Your task to perform on an android device: turn off wifi Image 0: 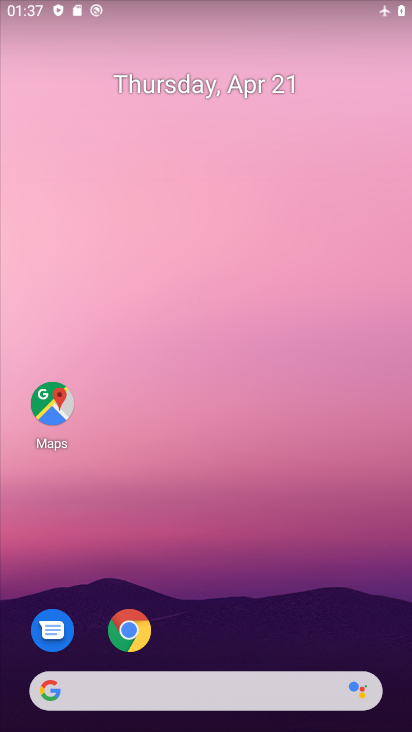
Step 0: drag from (235, 644) to (246, 36)
Your task to perform on an android device: turn off wifi Image 1: 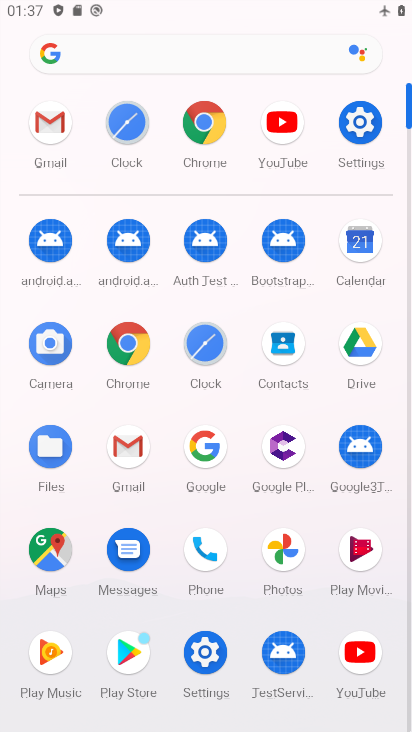
Step 1: click (218, 676)
Your task to perform on an android device: turn off wifi Image 2: 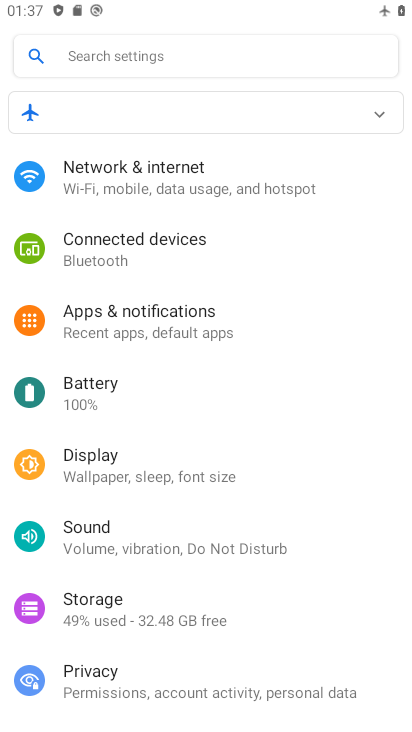
Step 2: click (195, 186)
Your task to perform on an android device: turn off wifi Image 3: 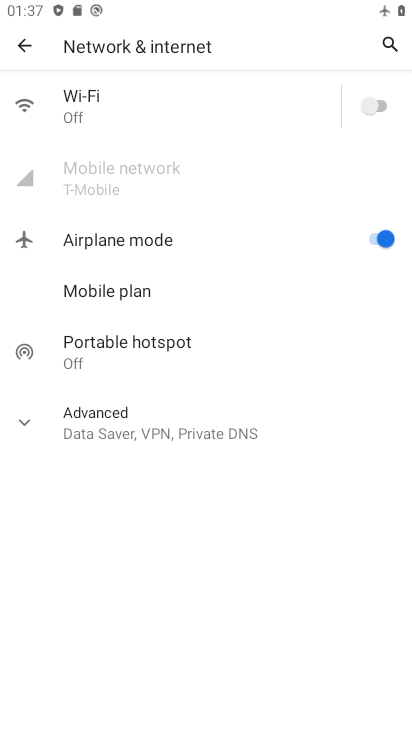
Step 3: click (349, 105)
Your task to perform on an android device: turn off wifi Image 4: 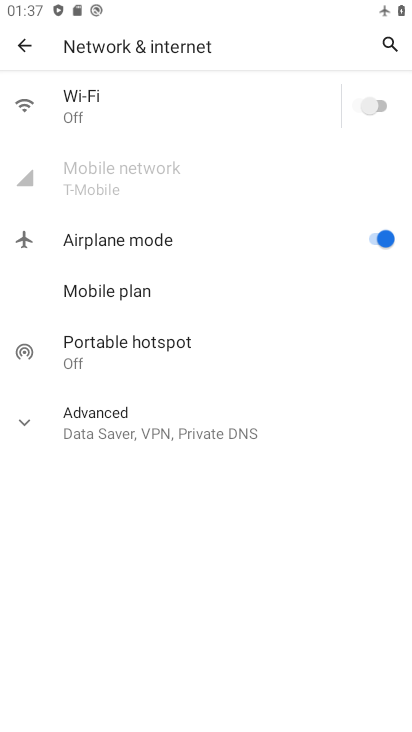
Step 4: click (349, 105)
Your task to perform on an android device: turn off wifi Image 5: 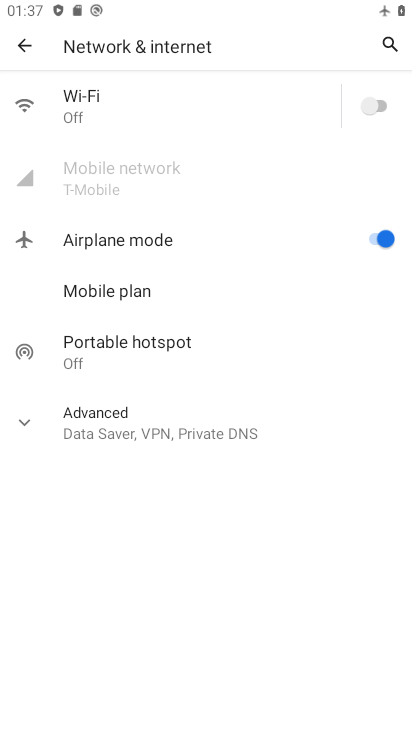
Step 5: task complete